Your task to perform on an android device: Go to notification settings Image 0: 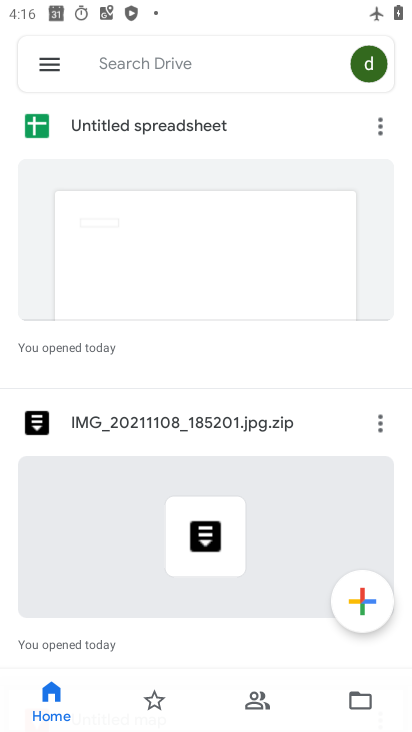
Step 0: press home button
Your task to perform on an android device: Go to notification settings Image 1: 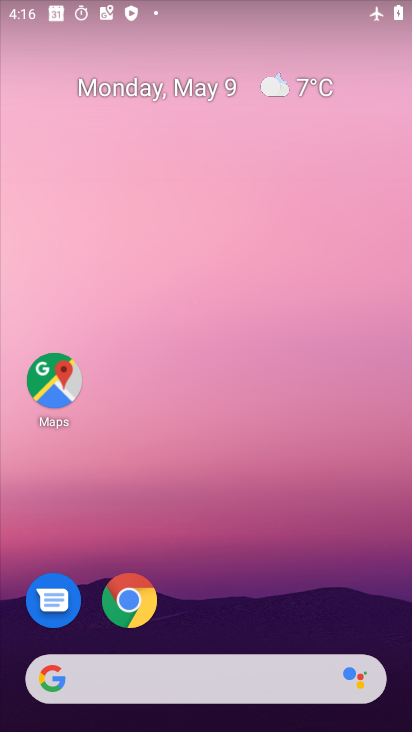
Step 1: drag from (296, 610) to (279, 172)
Your task to perform on an android device: Go to notification settings Image 2: 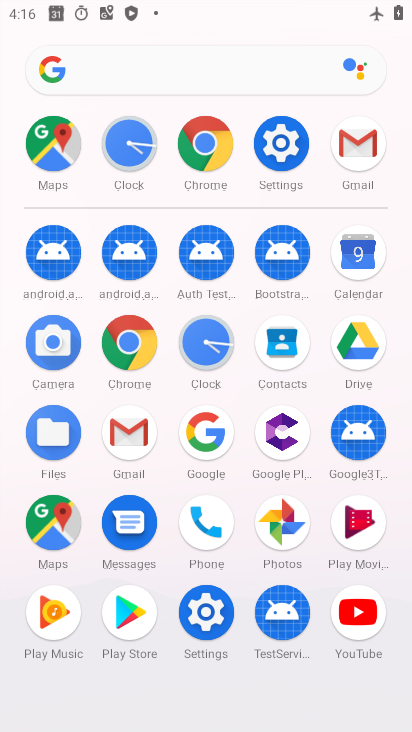
Step 2: click (285, 147)
Your task to perform on an android device: Go to notification settings Image 3: 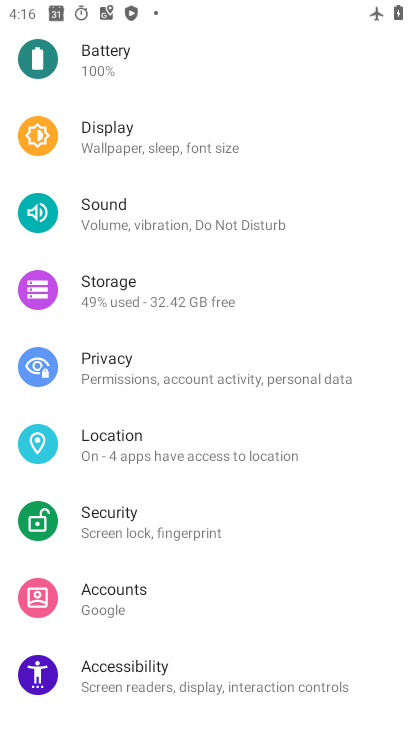
Step 3: drag from (236, 144) to (286, 652)
Your task to perform on an android device: Go to notification settings Image 4: 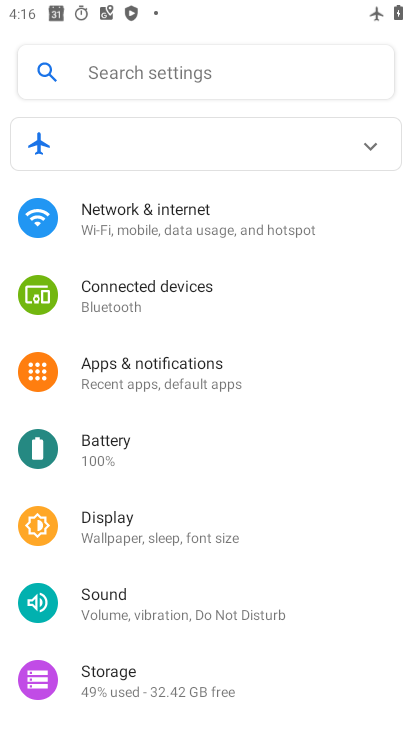
Step 4: click (190, 375)
Your task to perform on an android device: Go to notification settings Image 5: 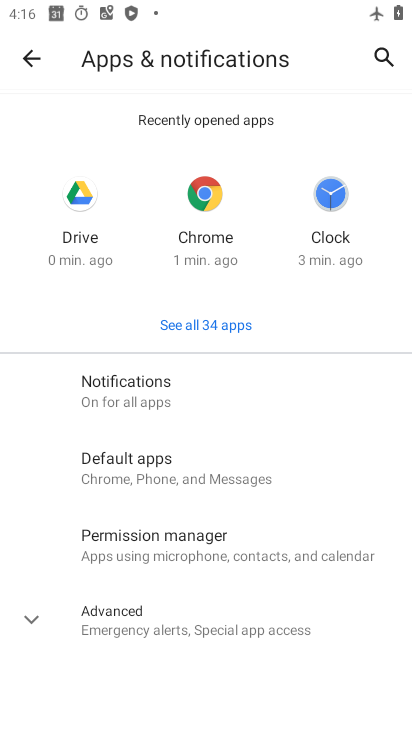
Step 5: click (147, 395)
Your task to perform on an android device: Go to notification settings Image 6: 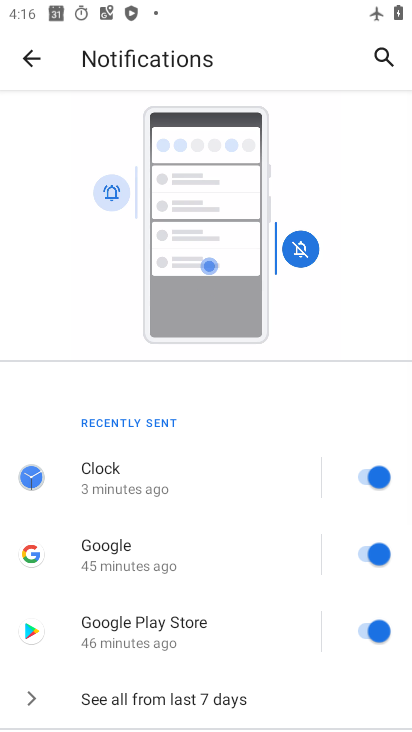
Step 6: task complete